Your task to perform on an android device: Toggle the flashlight Image 0: 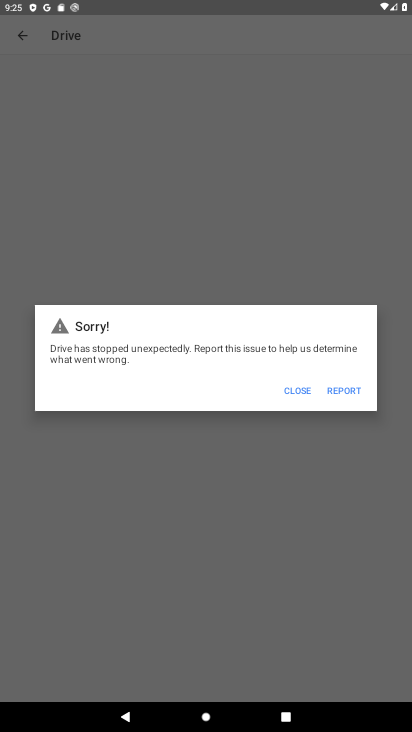
Step 0: press home button
Your task to perform on an android device: Toggle the flashlight Image 1: 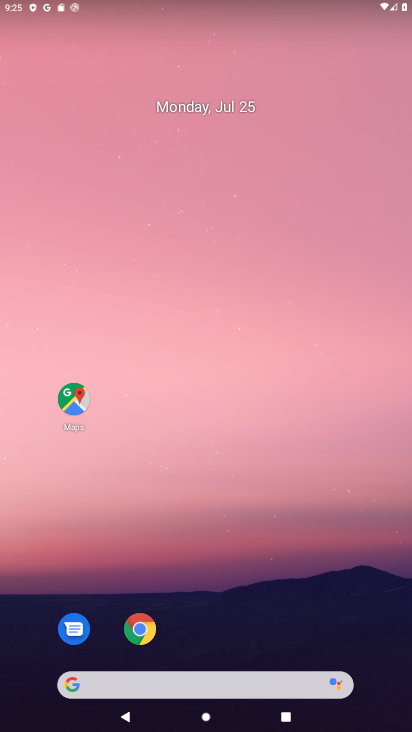
Step 1: drag from (178, 646) to (193, 169)
Your task to perform on an android device: Toggle the flashlight Image 2: 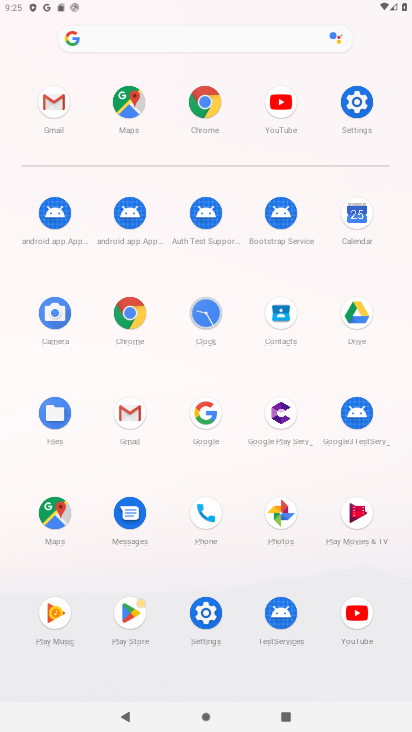
Step 2: click (346, 96)
Your task to perform on an android device: Toggle the flashlight Image 3: 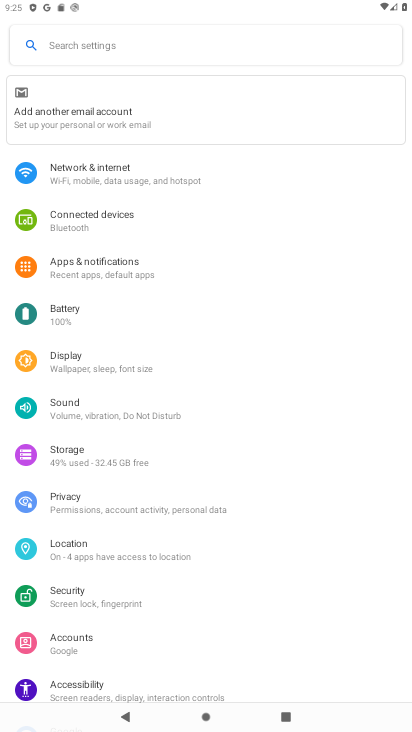
Step 3: task complete